Your task to perform on an android device: turn on improve location accuracy Image 0: 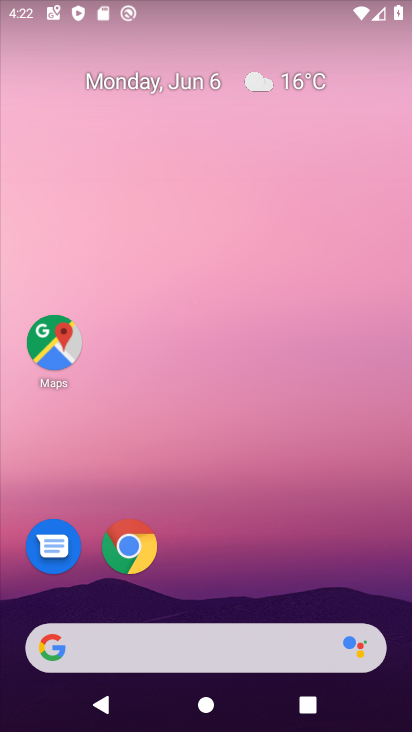
Step 0: drag from (217, 613) to (191, 11)
Your task to perform on an android device: turn on improve location accuracy Image 1: 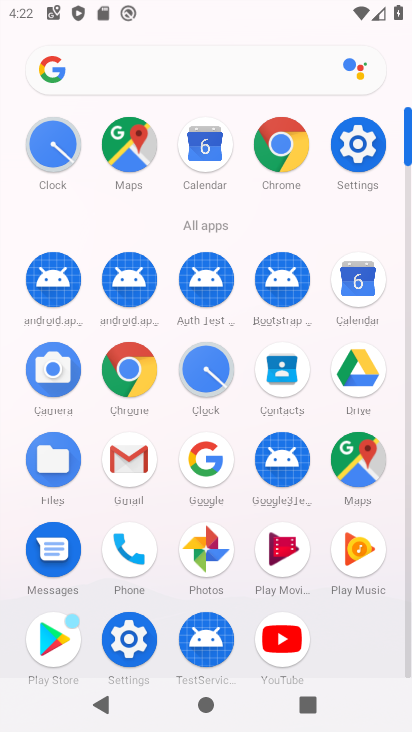
Step 1: click (366, 163)
Your task to perform on an android device: turn on improve location accuracy Image 2: 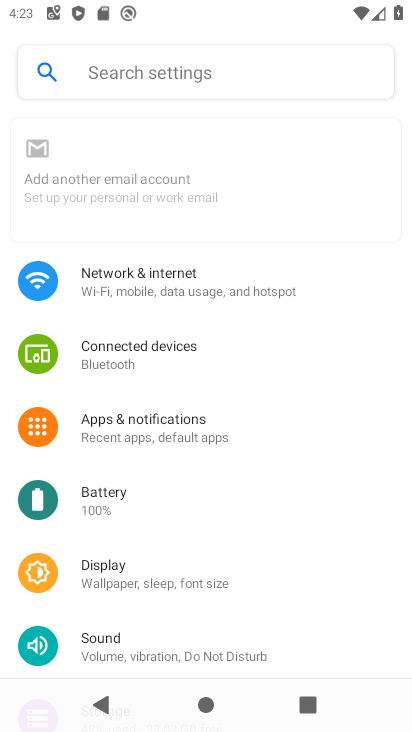
Step 2: drag from (163, 241) to (147, 608)
Your task to perform on an android device: turn on improve location accuracy Image 3: 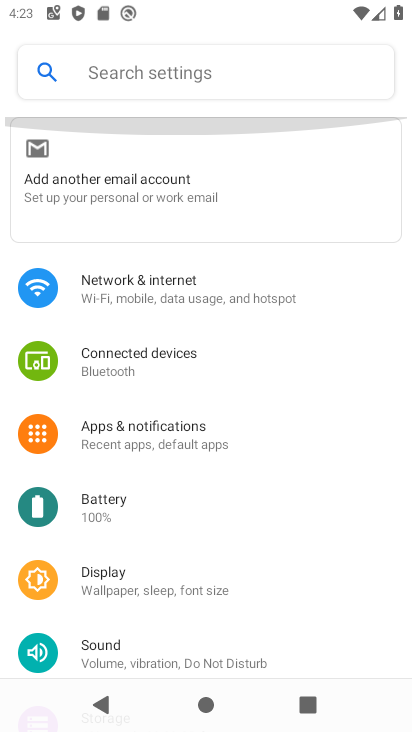
Step 3: drag from (148, 607) to (109, 204)
Your task to perform on an android device: turn on improve location accuracy Image 4: 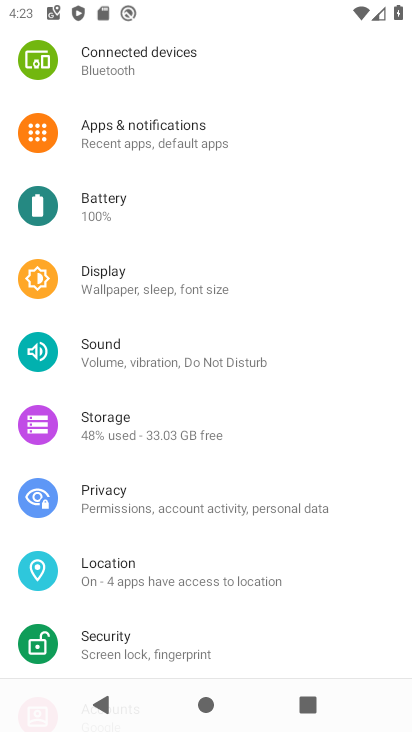
Step 4: click (144, 582)
Your task to perform on an android device: turn on improve location accuracy Image 5: 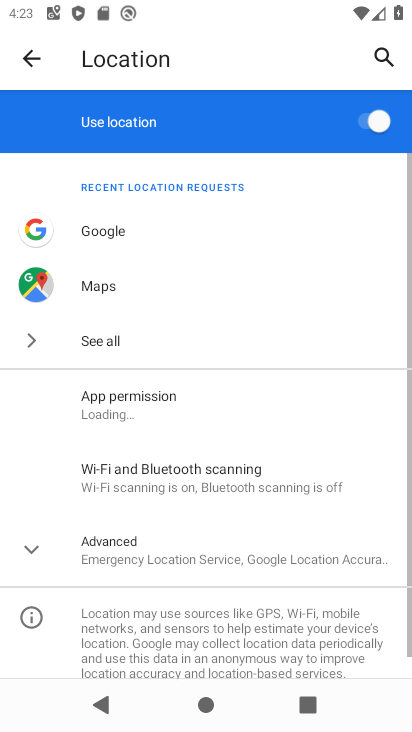
Step 5: drag from (147, 579) to (99, 253)
Your task to perform on an android device: turn on improve location accuracy Image 6: 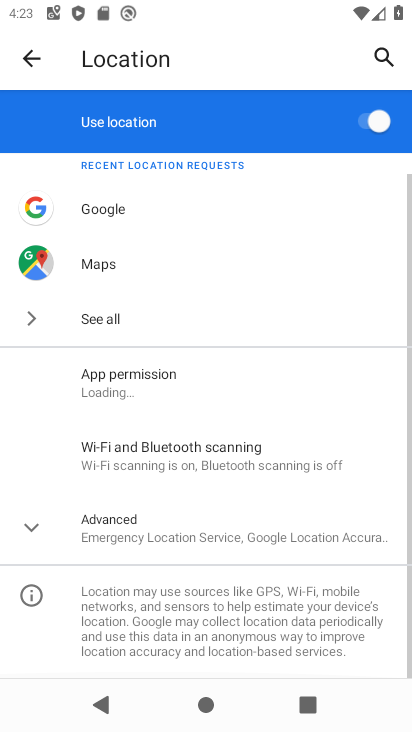
Step 6: click (117, 513)
Your task to perform on an android device: turn on improve location accuracy Image 7: 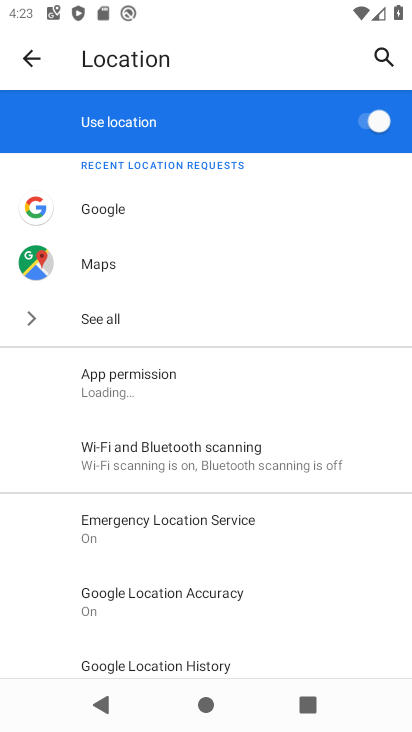
Step 7: click (162, 611)
Your task to perform on an android device: turn on improve location accuracy Image 8: 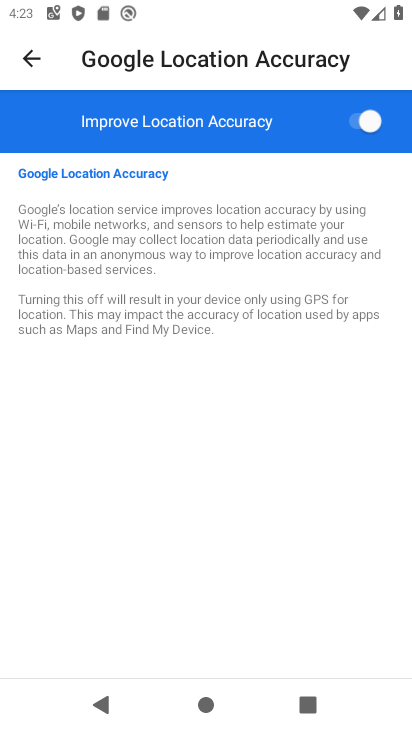
Step 8: task complete